Your task to perform on an android device: Go to Google maps Image 0: 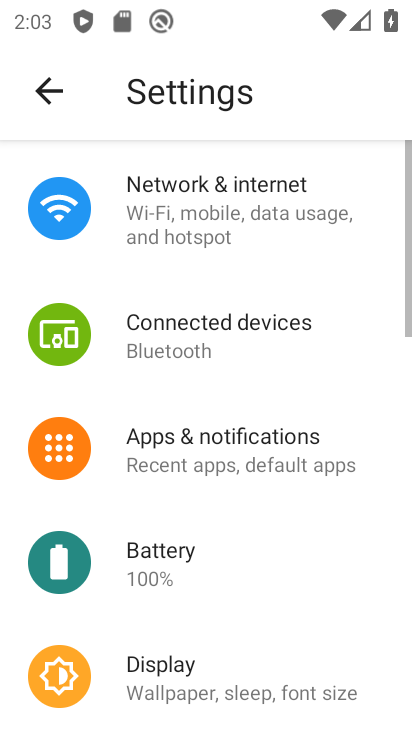
Step 0: press home button
Your task to perform on an android device: Go to Google maps Image 1: 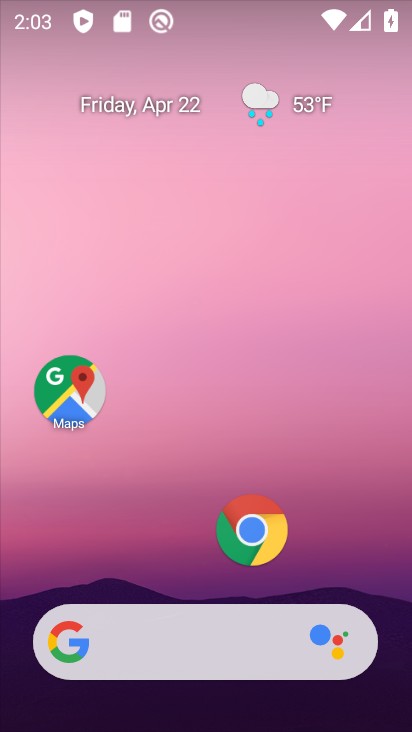
Step 1: click (67, 415)
Your task to perform on an android device: Go to Google maps Image 2: 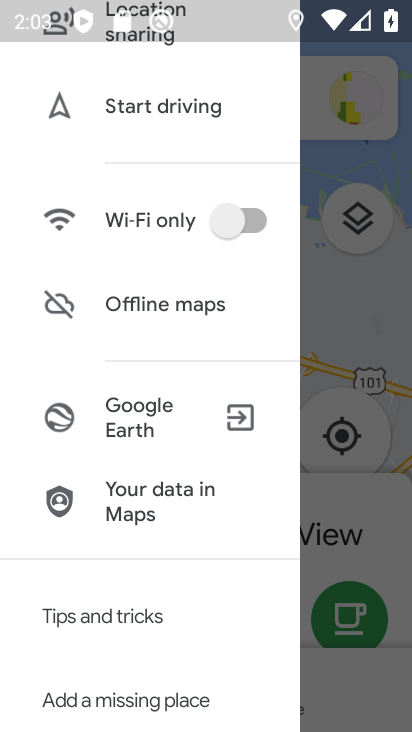
Step 2: click (314, 345)
Your task to perform on an android device: Go to Google maps Image 3: 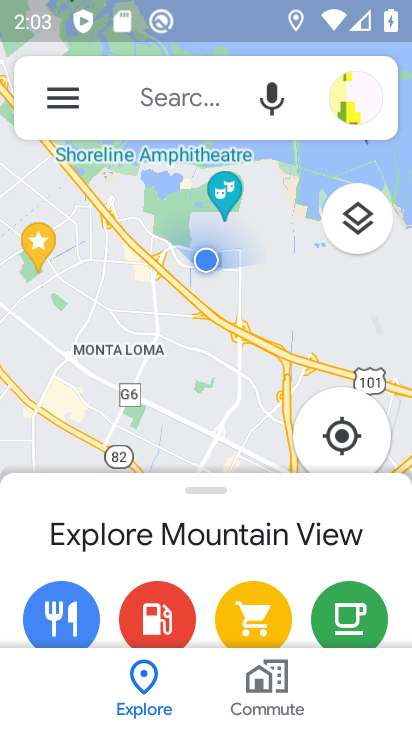
Step 3: task complete